Your task to perform on an android device: Open settings Image 0: 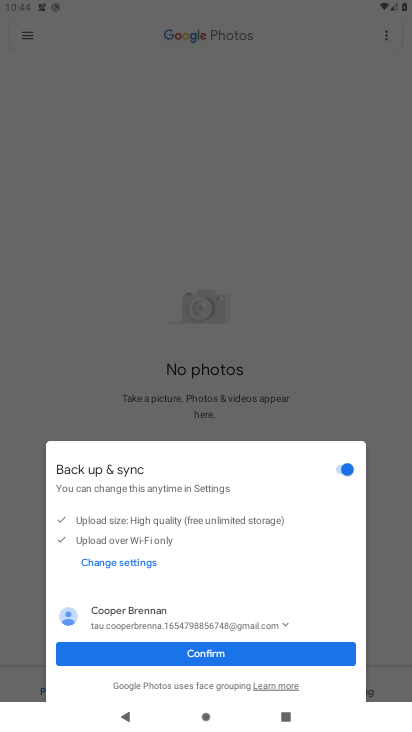
Step 0: press home button
Your task to perform on an android device: Open settings Image 1: 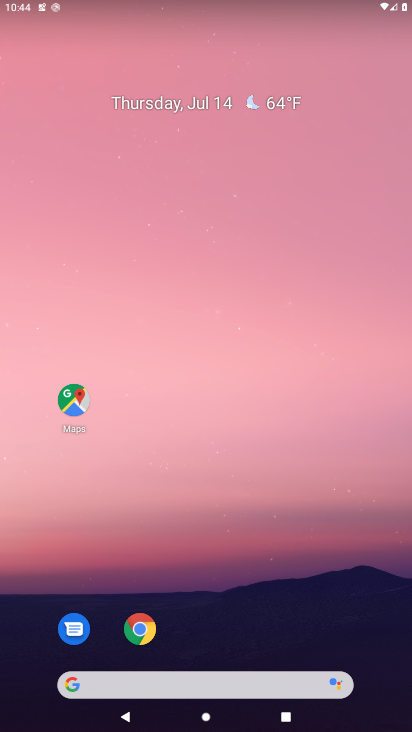
Step 1: drag from (175, 668) to (268, 61)
Your task to perform on an android device: Open settings Image 2: 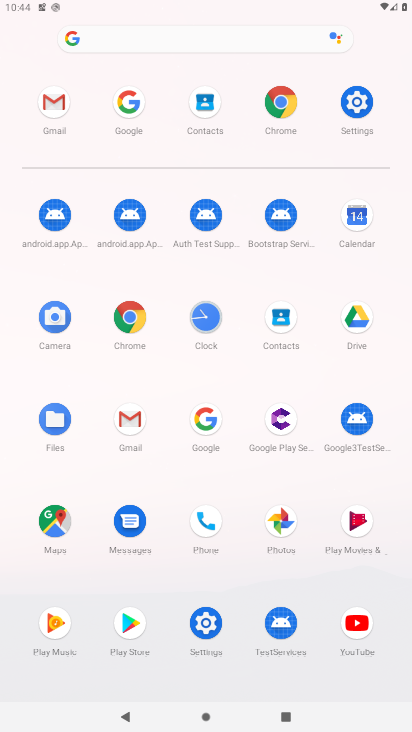
Step 2: click (356, 94)
Your task to perform on an android device: Open settings Image 3: 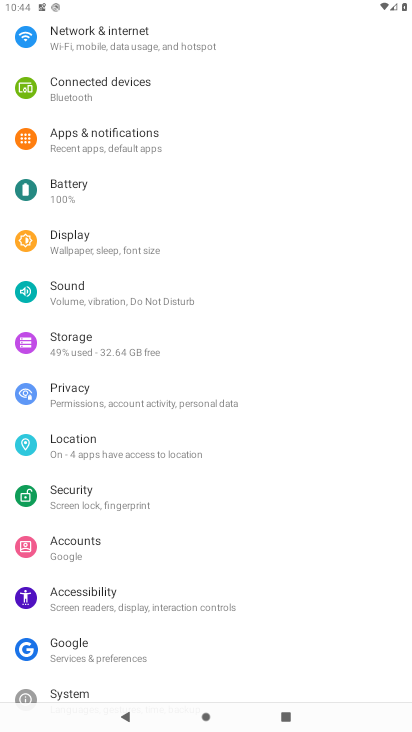
Step 3: task complete